Your task to perform on an android device: read, delete, or share a saved page in the chrome app Image 0: 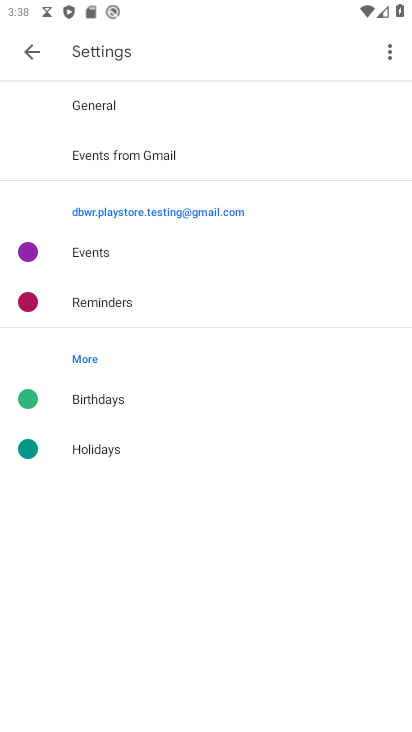
Step 0: click (20, 43)
Your task to perform on an android device: read, delete, or share a saved page in the chrome app Image 1: 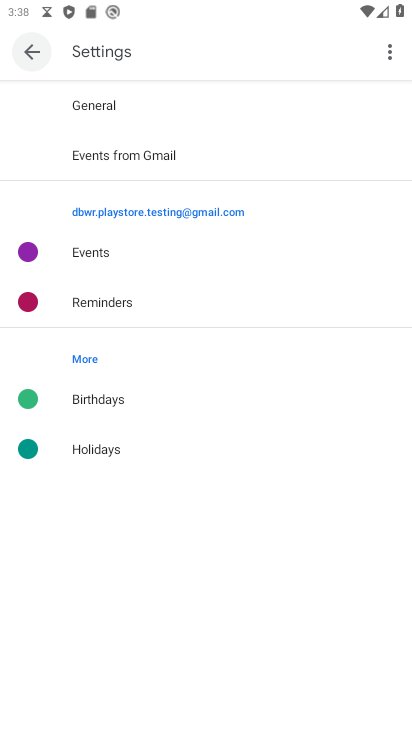
Step 1: click (23, 43)
Your task to perform on an android device: read, delete, or share a saved page in the chrome app Image 2: 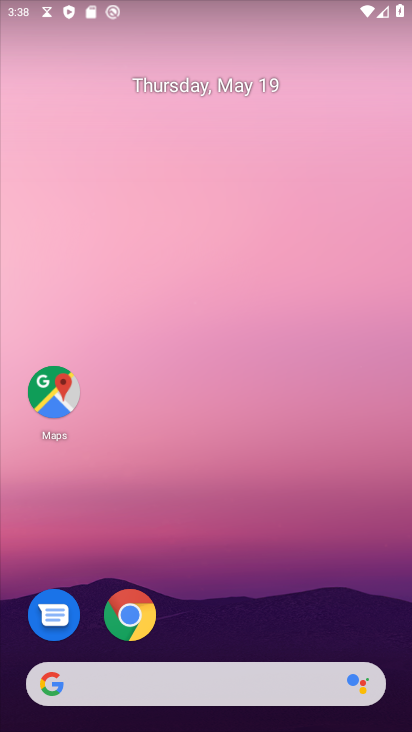
Step 2: drag from (231, 630) to (164, 3)
Your task to perform on an android device: read, delete, or share a saved page in the chrome app Image 3: 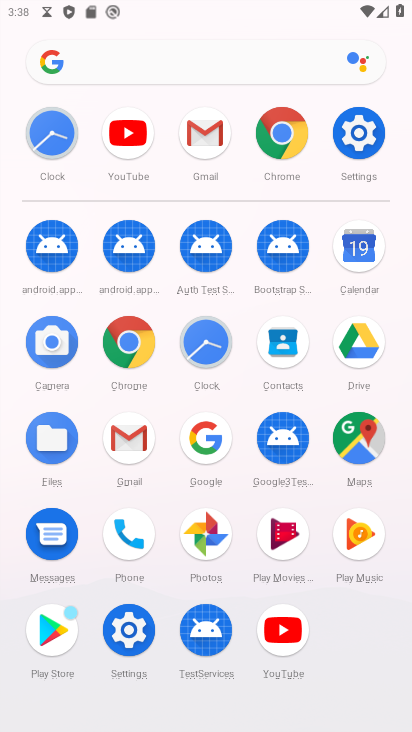
Step 3: click (268, 133)
Your task to perform on an android device: read, delete, or share a saved page in the chrome app Image 4: 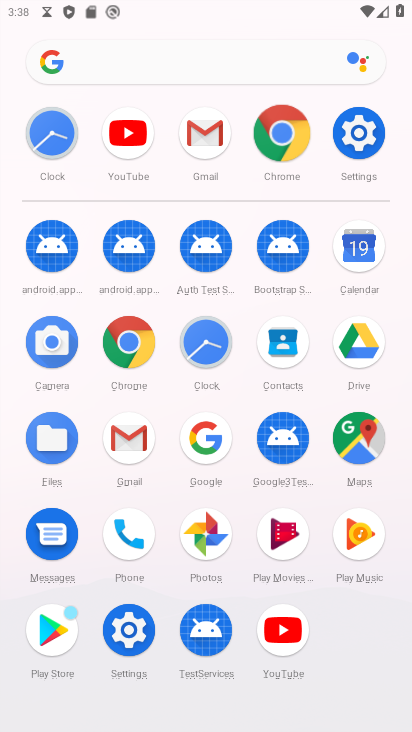
Step 4: click (271, 133)
Your task to perform on an android device: read, delete, or share a saved page in the chrome app Image 5: 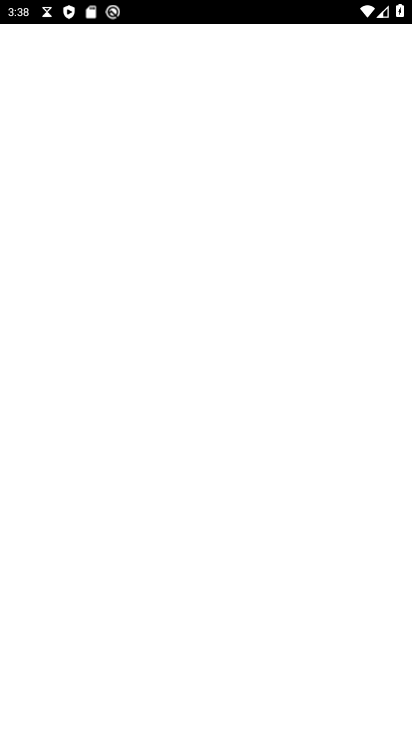
Step 5: click (271, 133)
Your task to perform on an android device: read, delete, or share a saved page in the chrome app Image 6: 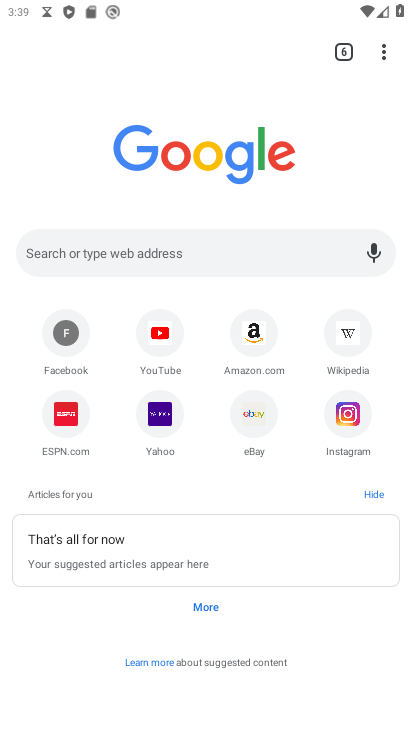
Step 6: drag from (385, 54) to (190, 338)
Your task to perform on an android device: read, delete, or share a saved page in the chrome app Image 7: 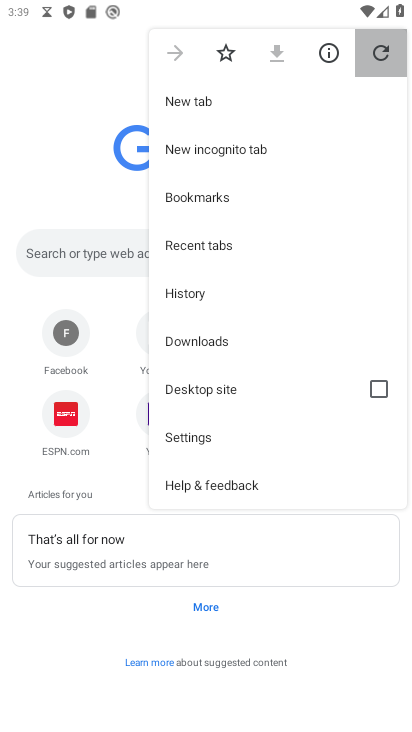
Step 7: click (191, 339)
Your task to perform on an android device: read, delete, or share a saved page in the chrome app Image 8: 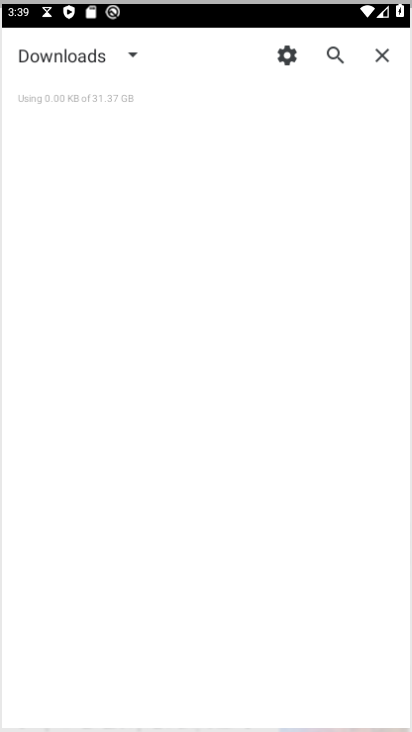
Step 8: click (193, 339)
Your task to perform on an android device: read, delete, or share a saved page in the chrome app Image 9: 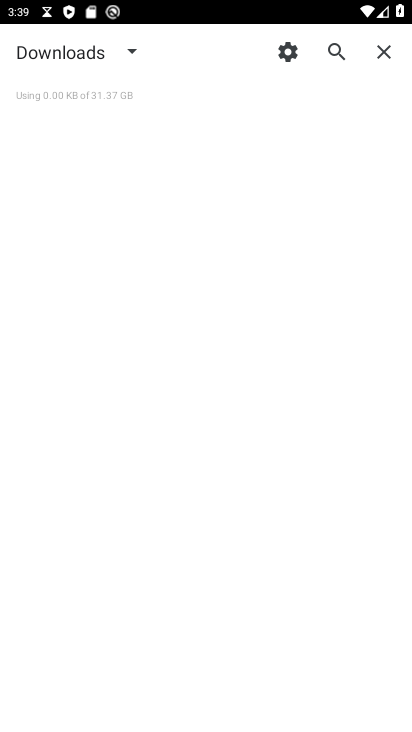
Step 9: click (196, 337)
Your task to perform on an android device: read, delete, or share a saved page in the chrome app Image 10: 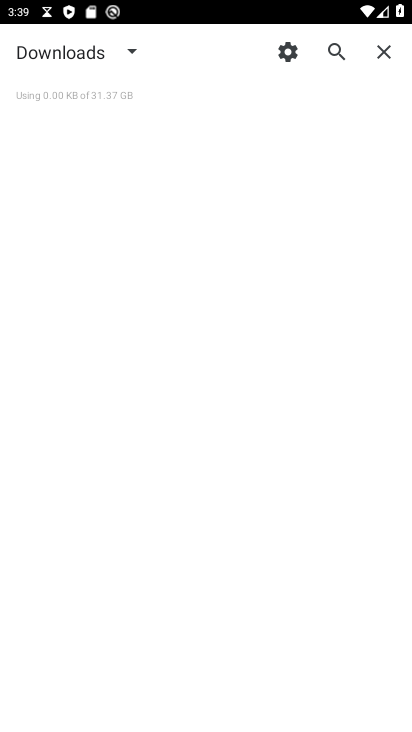
Step 10: click (127, 52)
Your task to perform on an android device: read, delete, or share a saved page in the chrome app Image 11: 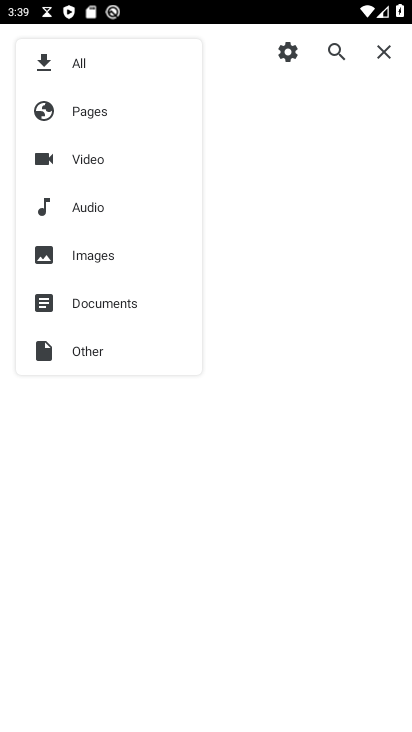
Step 11: click (85, 116)
Your task to perform on an android device: read, delete, or share a saved page in the chrome app Image 12: 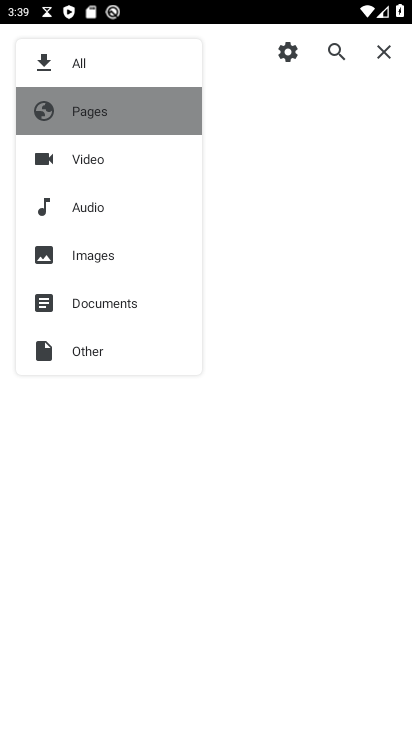
Step 12: click (91, 110)
Your task to perform on an android device: read, delete, or share a saved page in the chrome app Image 13: 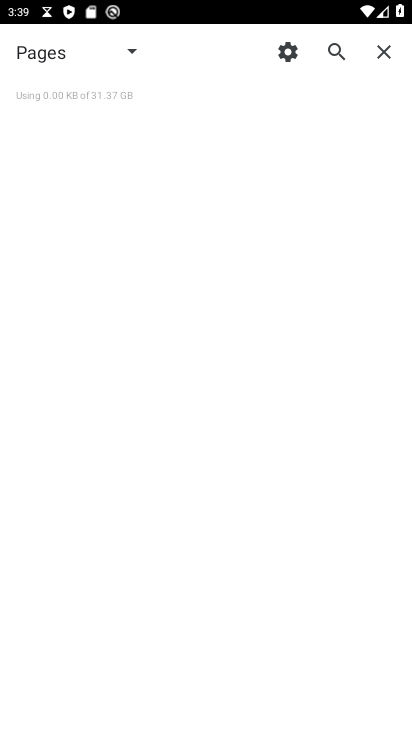
Step 13: task complete